Your task to perform on an android device: Go to Yahoo.com Image 0: 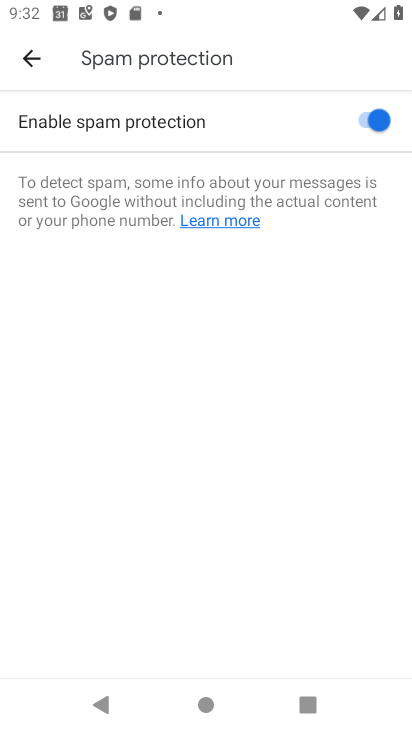
Step 0: press home button
Your task to perform on an android device: Go to Yahoo.com Image 1: 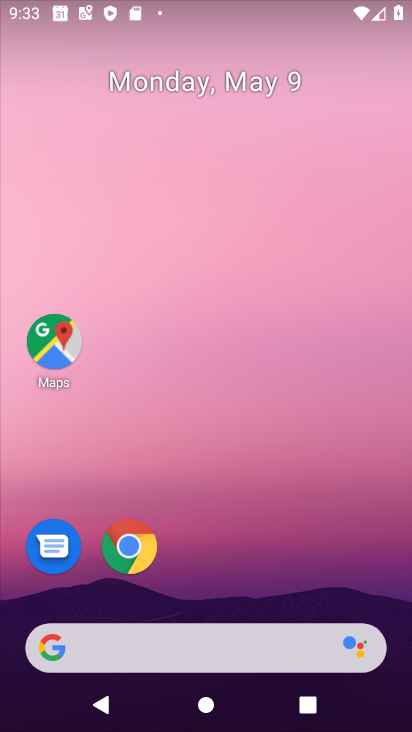
Step 1: click (137, 536)
Your task to perform on an android device: Go to Yahoo.com Image 2: 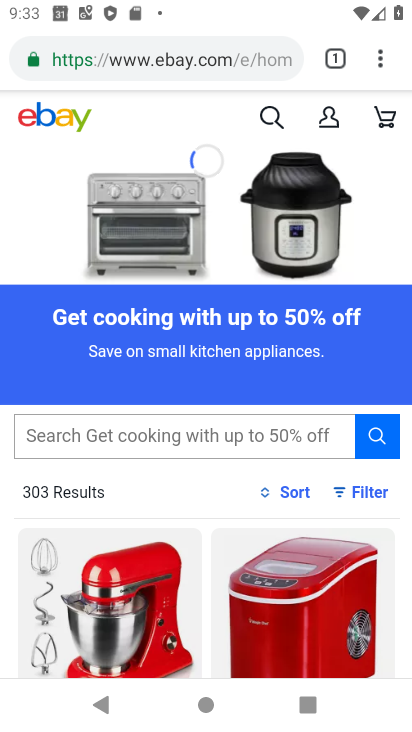
Step 2: click (378, 56)
Your task to perform on an android device: Go to Yahoo.com Image 3: 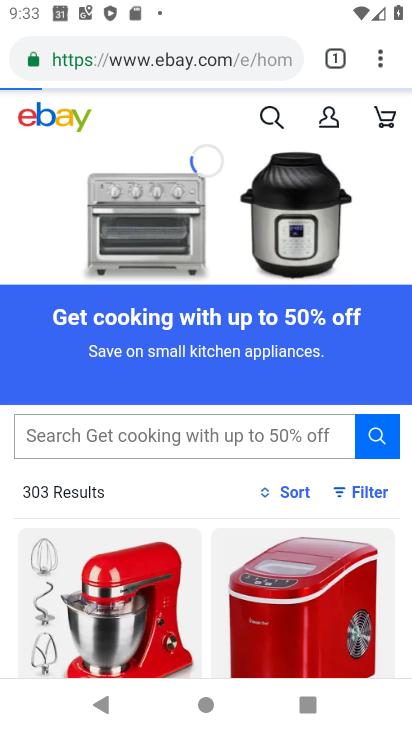
Step 3: click (208, 124)
Your task to perform on an android device: Go to Yahoo.com Image 4: 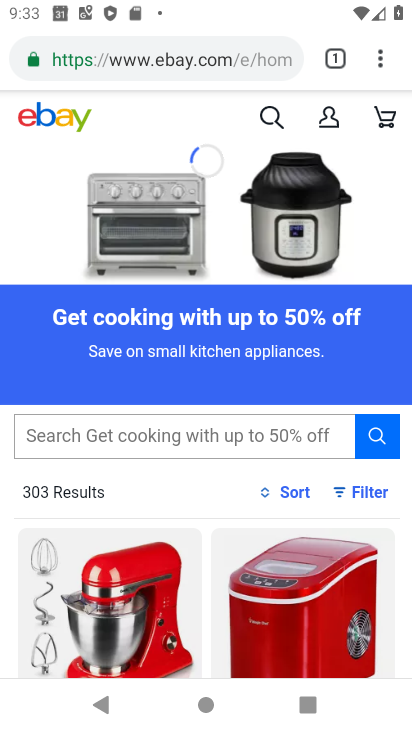
Step 4: drag from (380, 54) to (177, 123)
Your task to perform on an android device: Go to Yahoo.com Image 5: 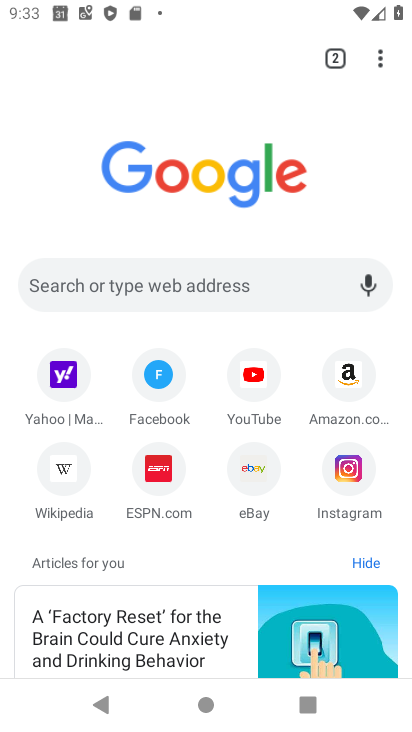
Step 5: click (57, 406)
Your task to perform on an android device: Go to Yahoo.com Image 6: 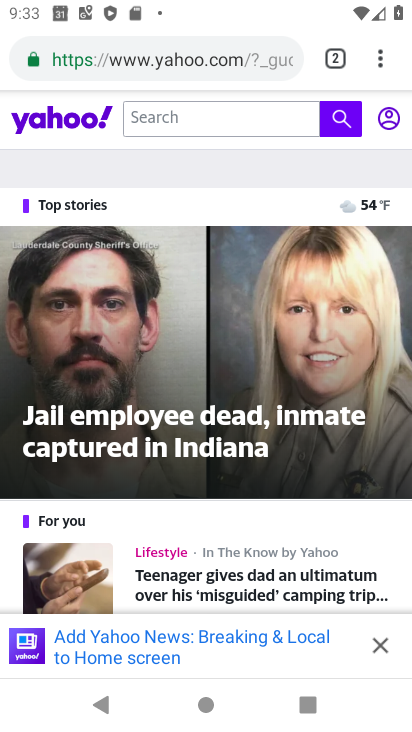
Step 6: task complete